Your task to perform on an android device: What's the weather? Image 0: 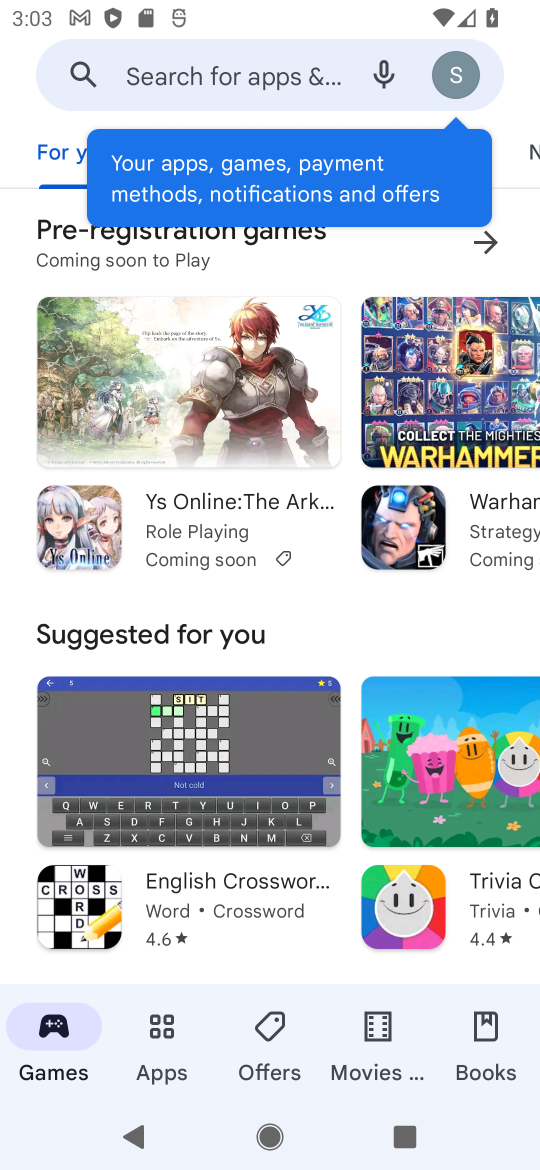
Step 0: press home button
Your task to perform on an android device: What's the weather? Image 1: 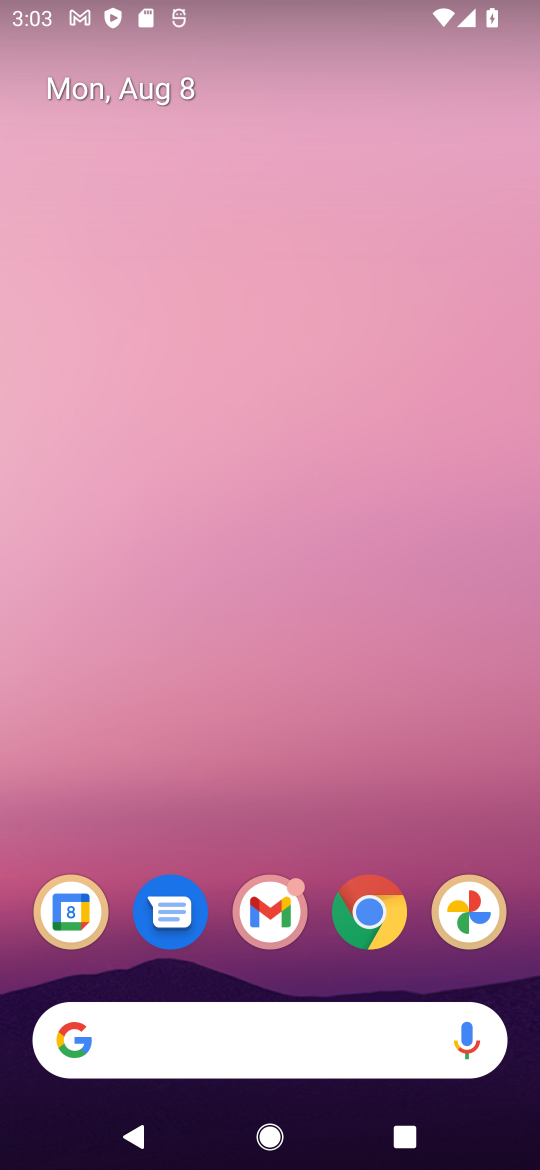
Step 1: click (148, 1033)
Your task to perform on an android device: What's the weather? Image 2: 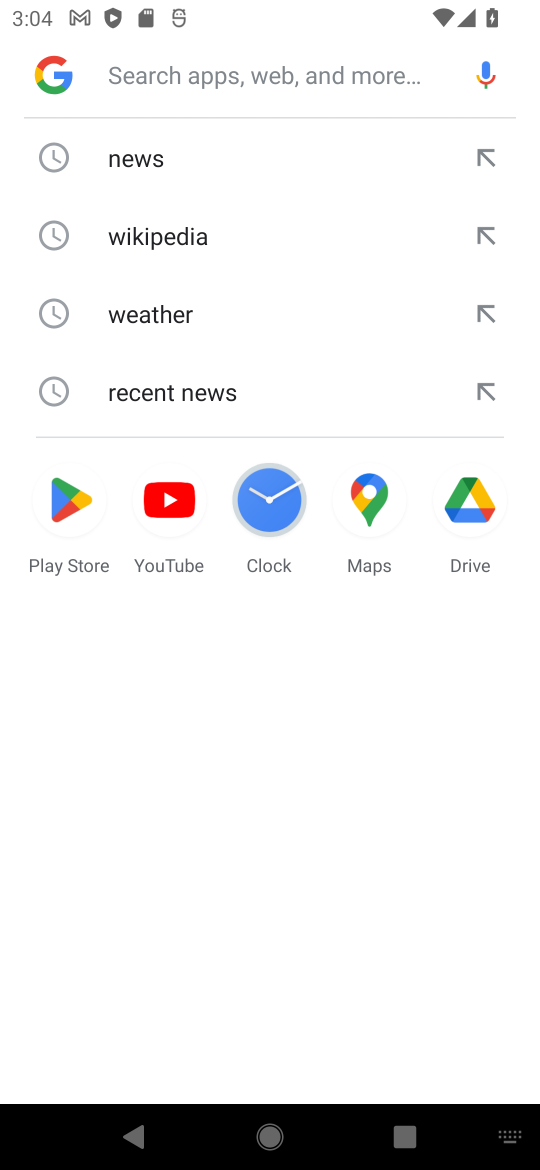
Step 2: click (274, 320)
Your task to perform on an android device: What's the weather? Image 3: 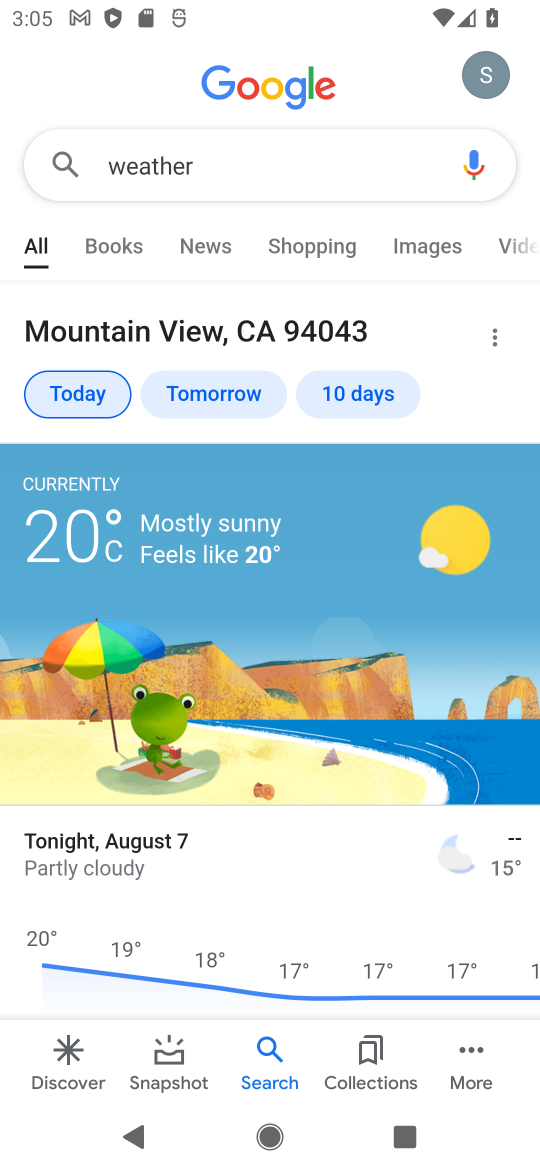
Step 3: task complete